Your task to perform on an android device: Go to location settings Image 0: 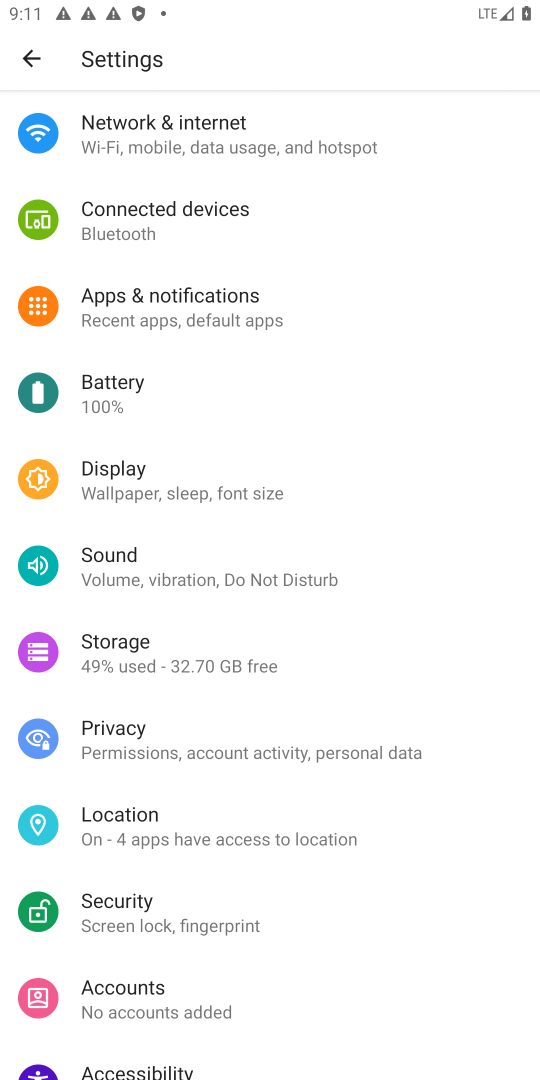
Step 0: click (237, 149)
Your task to perform on an android device: Go to location settings Image 1: 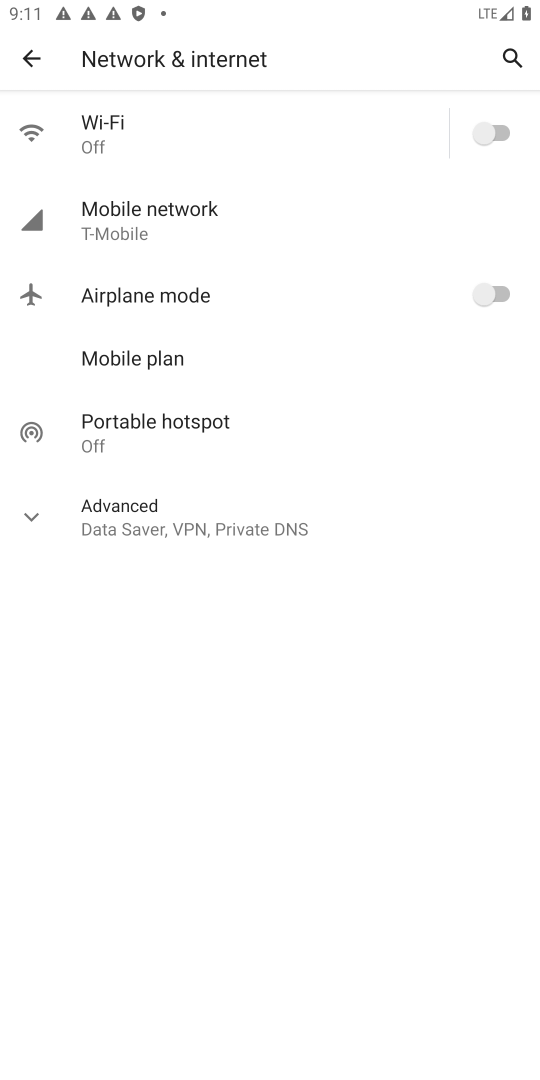
Step 1: press back button
Your task to perform on an android device: Go to location settings Image 2: 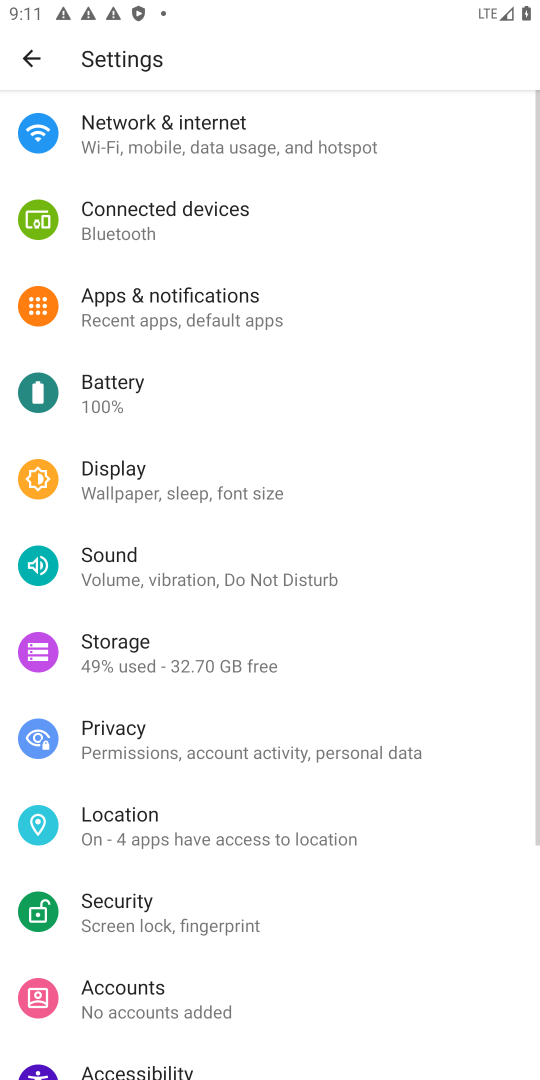
Step 2: click (237, 848)
Your task to perform on an android device: Go to location settings Image 3: 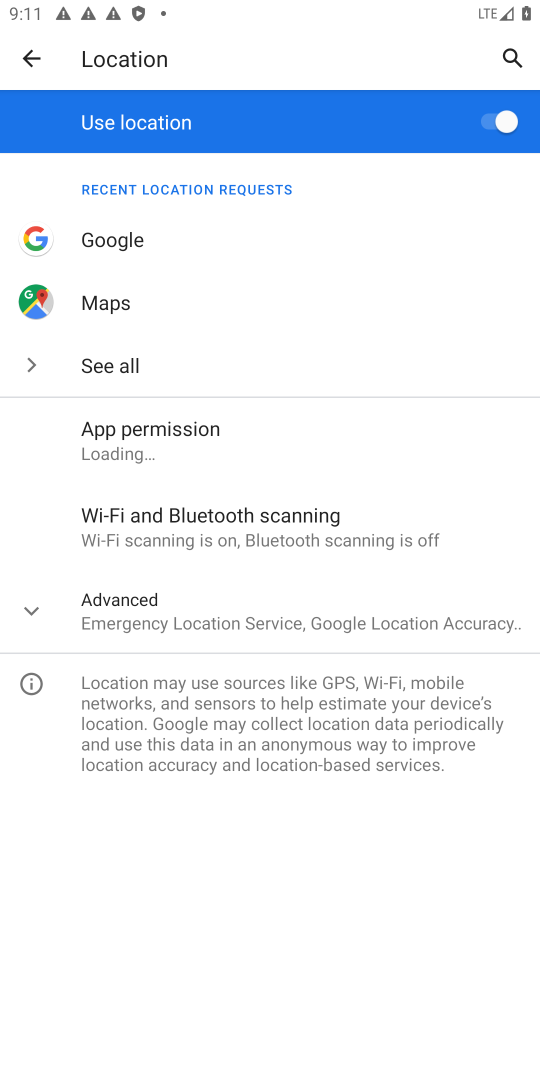
Step 3: task complete